Your task to perform on an android device: Go to location settings Image 0: 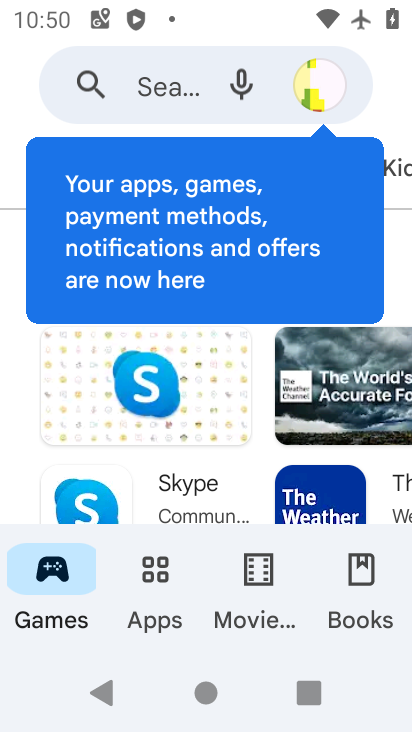
Step 0: press home button
Your task to perform on an android device: Go to location settings Image 1: 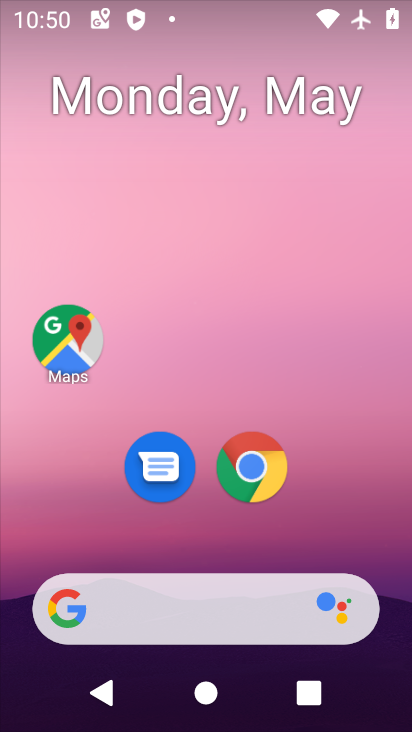
Step 1: drag from (317, 550) to (360, 173)
Your task to perform on an android device: Go to location settings Image 2: 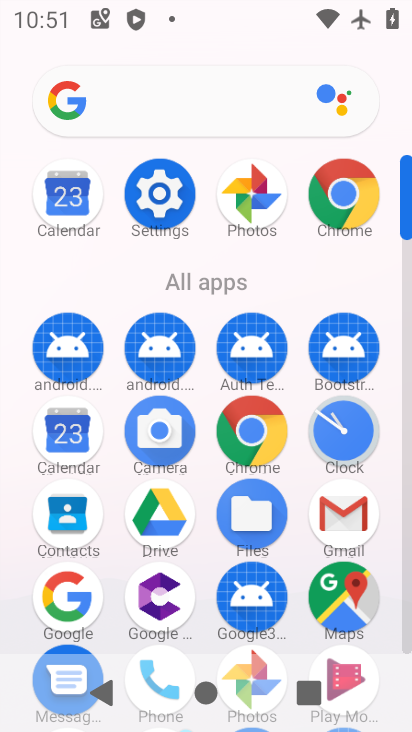
Step 2: click (145, 200)
Your task to perform on an android device: Go to location settings Image 3: 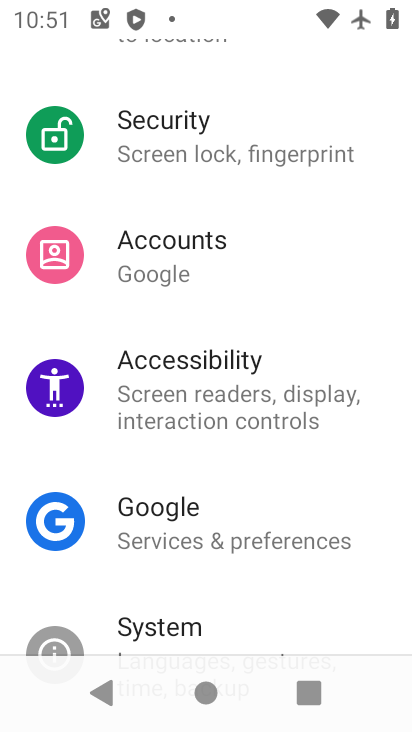
Step 3: drag from (277, 276) to (325, 523)
Your task to perform on an android device: Go to location settings Image 4: 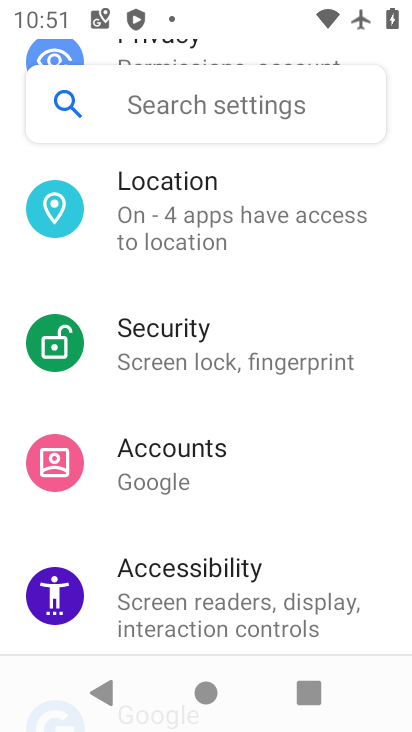
Step 4: drag from (294, 300) to (277, 508)
Your task to perform on an android device: Go to location settings Image 5: 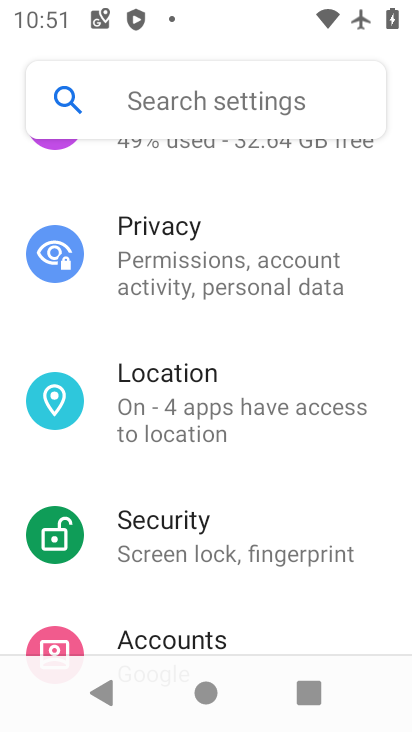
Step 5: click (158, 394)
Your task to perform on an android device: Go to location settings Image 6: 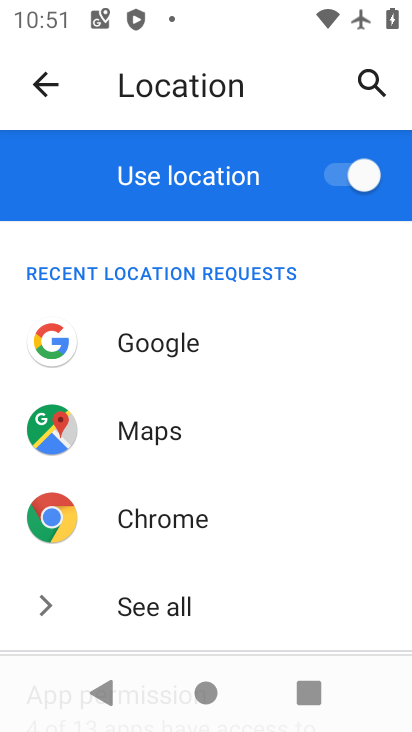
Step 6: task complete